Your task to perform on an android device: Google the capital of Paraguay Image 0: 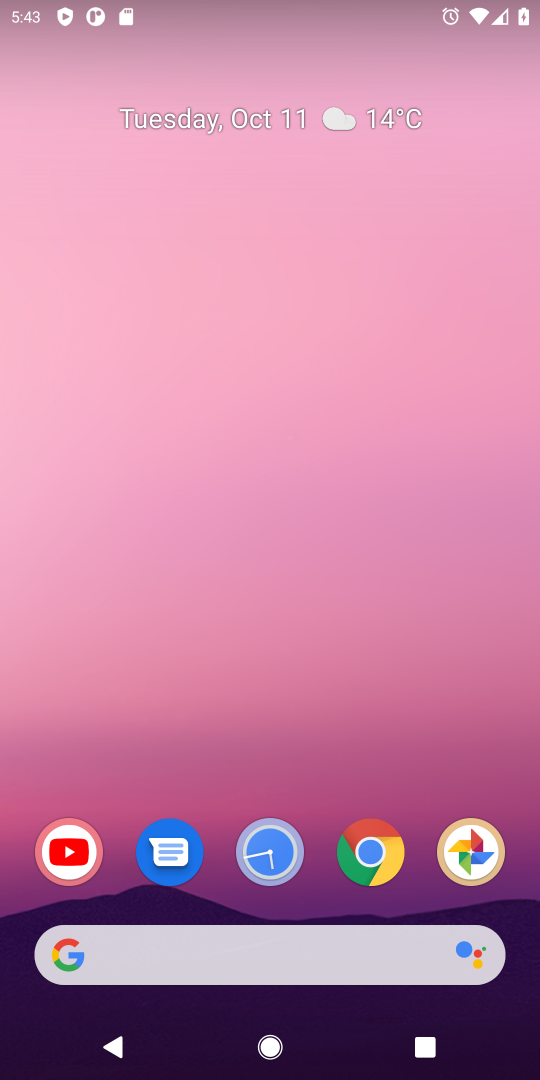
Step 0: click (391, 848)
Your task to perform on an android device: Google the capital of Paraguay Image 1: 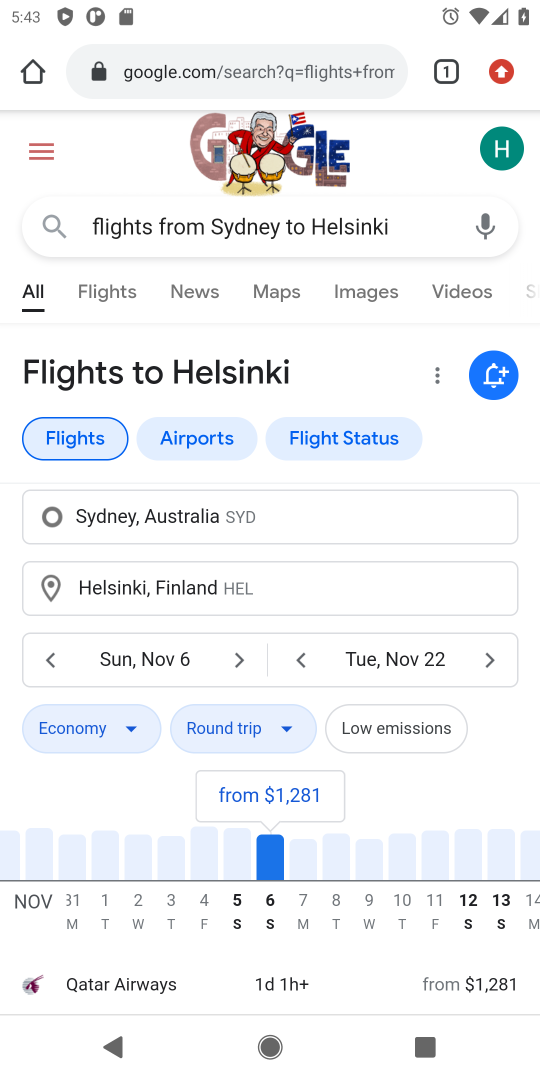
Step 1: click (244, 60)
Your task to perform on an android device: Google the capital of Paraguay Image 2: 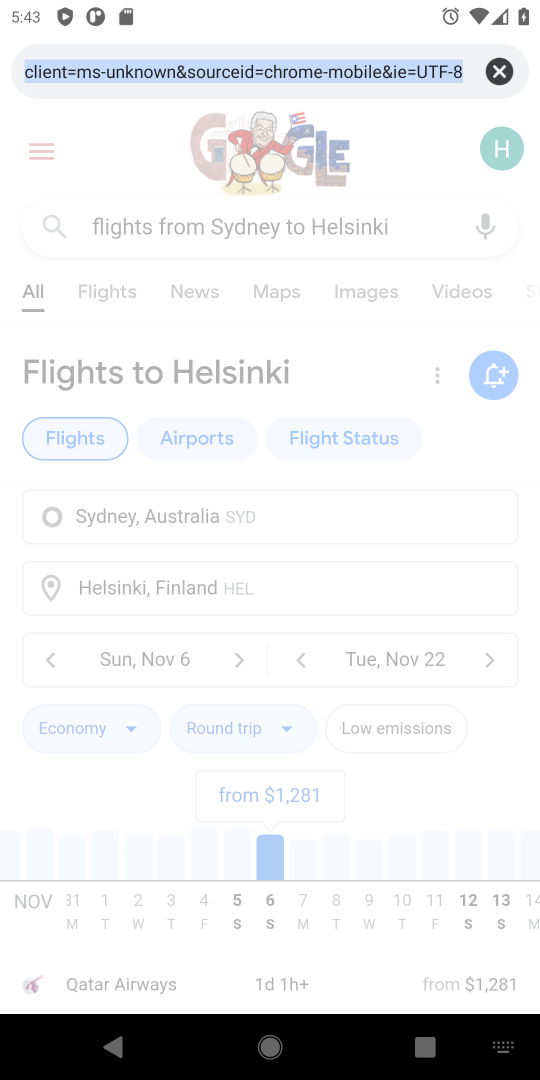
Step 2: type "capital of Paraguay"
Your task to perform on an android device: Google the capital of Paraguay Image 3: 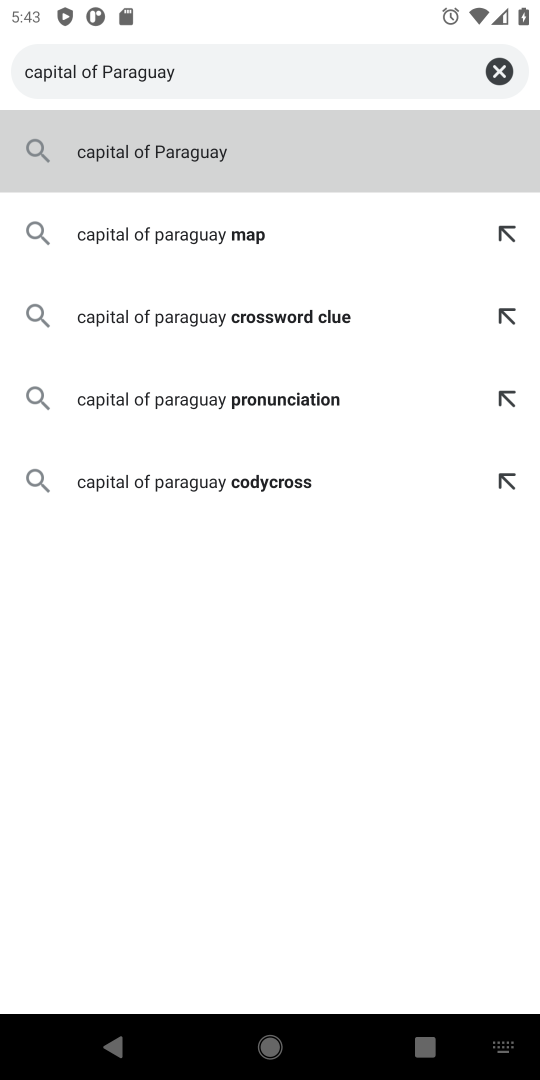
Step 3: click (344, 152)
Your task to perform on an android device: Google the capital of Paraguay Image 4: 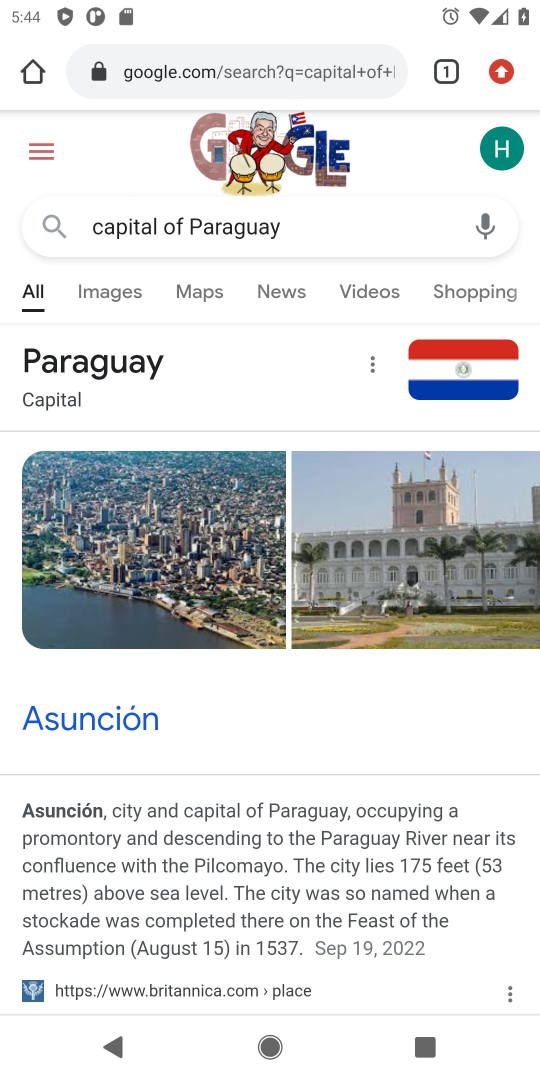
Step 4: task complete